Your task to perform on an android device: Go to Yahoo.com Image 0: 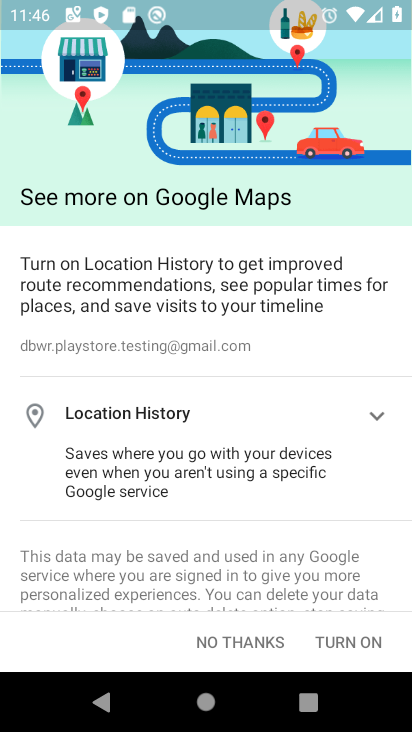
Step 0: press home button
Your task to perform on an android device: Go to Yahoo.com Image 1: 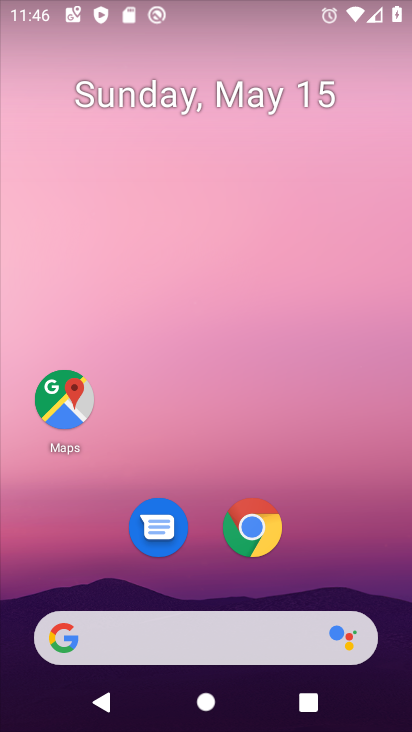
Step 1: click (276, 529)
Your task to perform on an android device: Go to Yahoo.com Image 2: 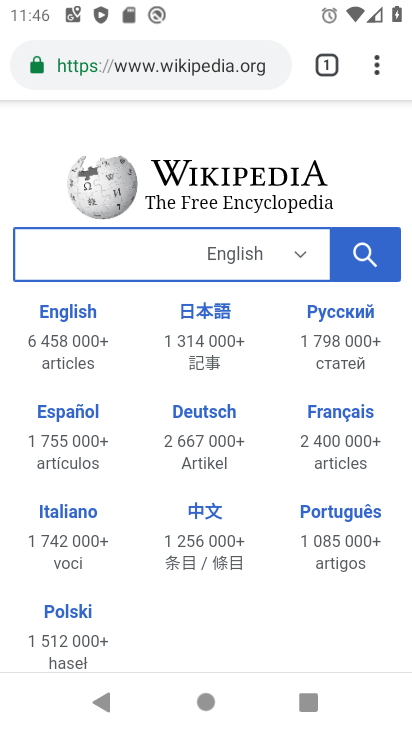
Step 2: click (203, 75)
Your task to perform on an android device: Go to Yahoo.com Image 3: 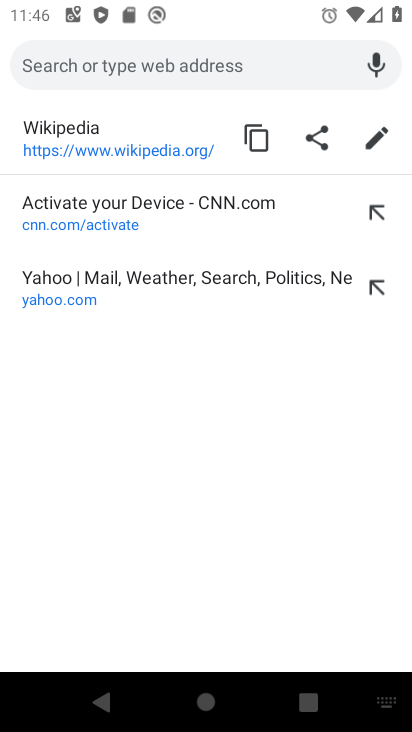
Step 3: click (244, 280)
Your task to perform on an android device: Go to Yahoo.com Image 4: 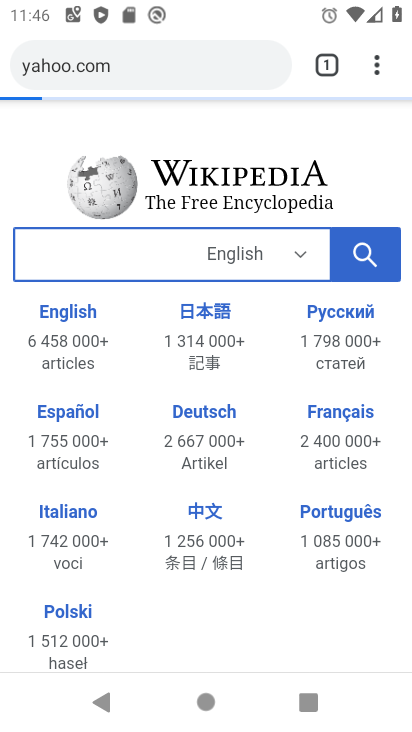
Step 4: task complete